Your task to perform on an android device: Open sound settings Image 0: 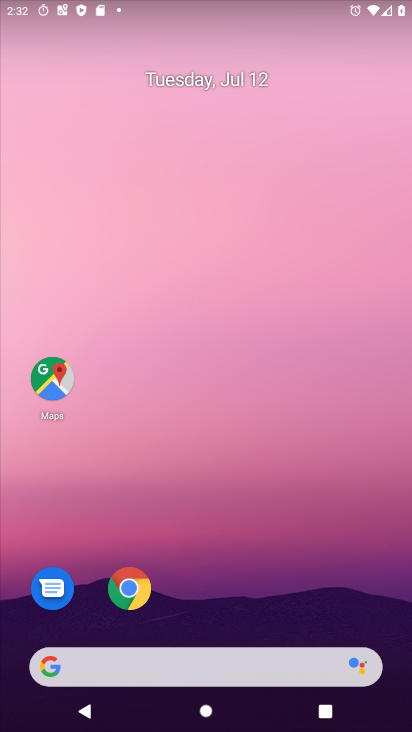
Step 0: click (166, 184)
Your task to perform on an android device: Open sound settings Image 1: 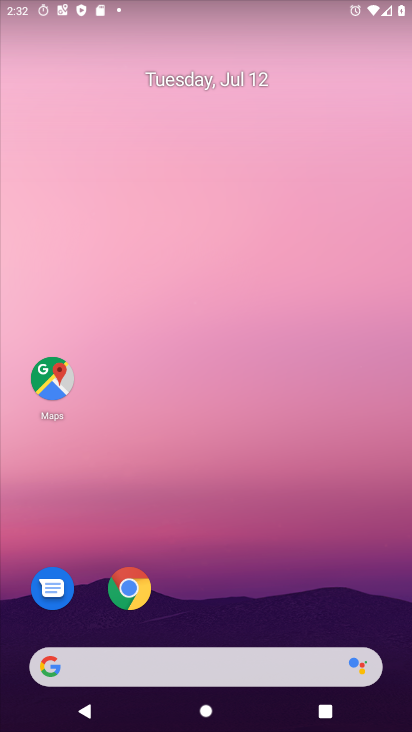
Step 1: drag from (232, 609) to (282, 15)
Your task to perform on an android device: Open sound settings Image 2: 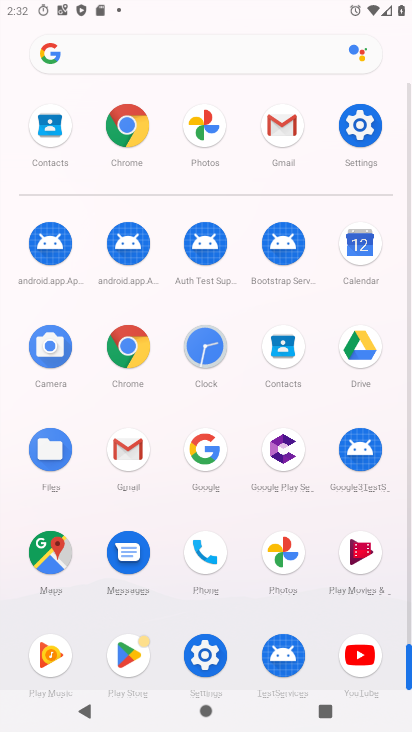
Step 2: click (354, 653)
Your task to perform on an android device: Open sound settings Image 3: 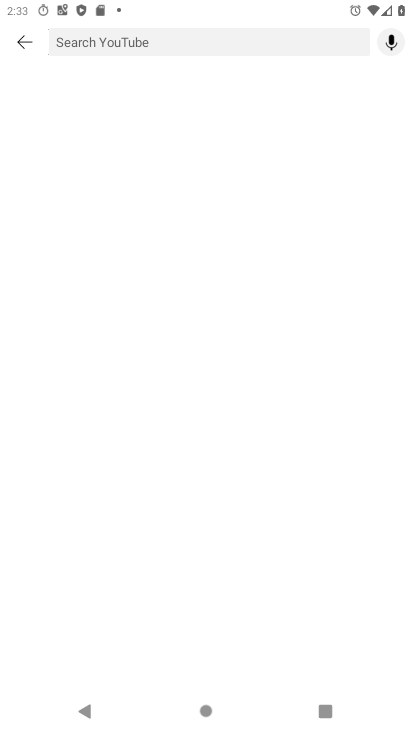
Step 3: drag from (196, 656) to (308, 288)
Your task to perform on an android device: Open sound settings Image 4: 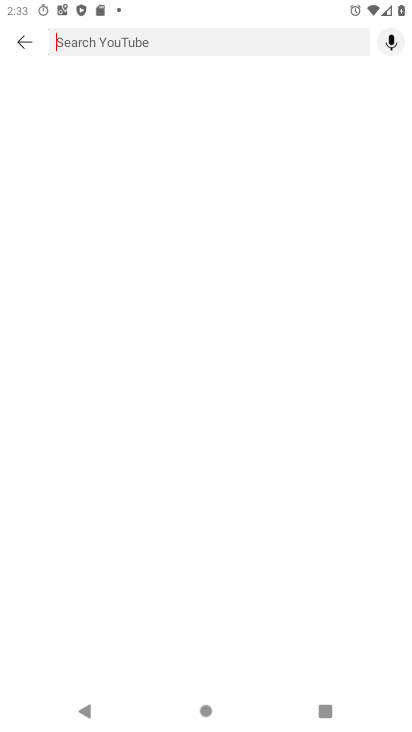
Step 4: click (12, 50)
Your task to perform on an android device: Open sound settings Image 5: 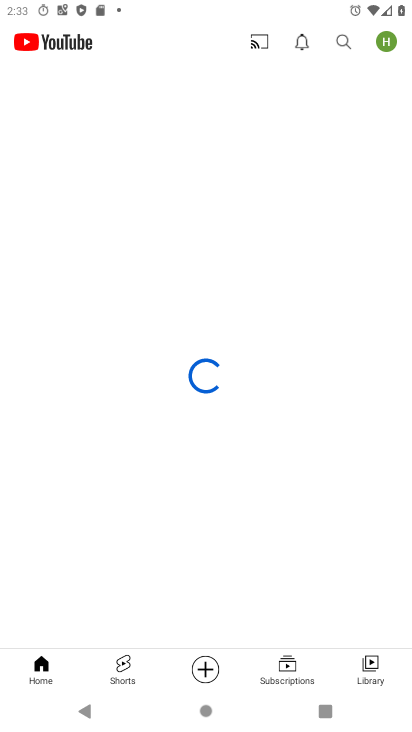
Step 5: press home button
Your task to perform on an android device: Open sound settings Image 6: 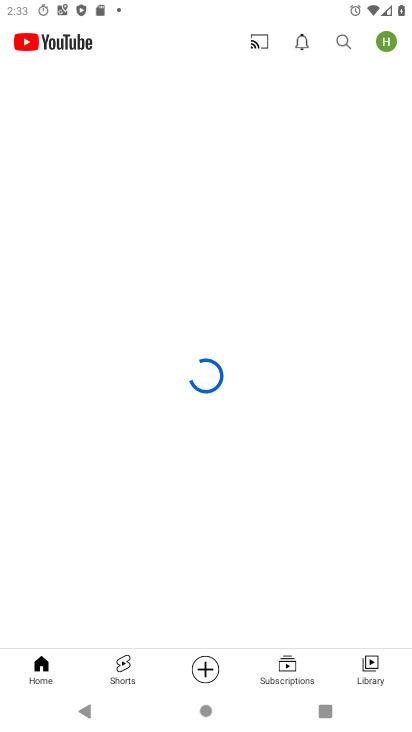
Step 6: drag from (232, 385) to (335, 171)
Your task to perform on an android device: Open sound settings Image 7: 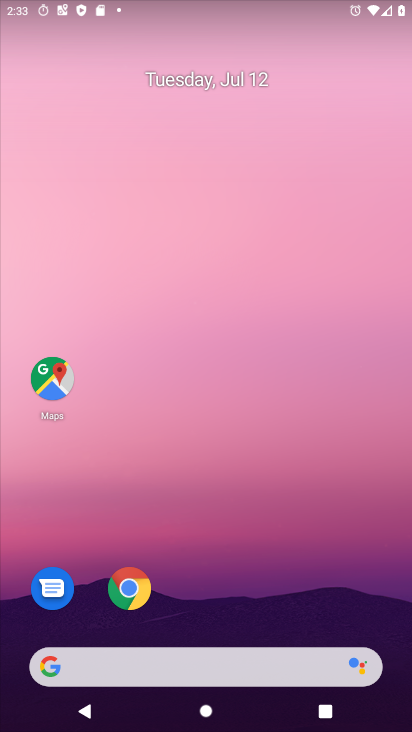
Step 7: drag from (264, 333) to (316, 3)
Your task to perform on an android device: Open sound settings Image 8: 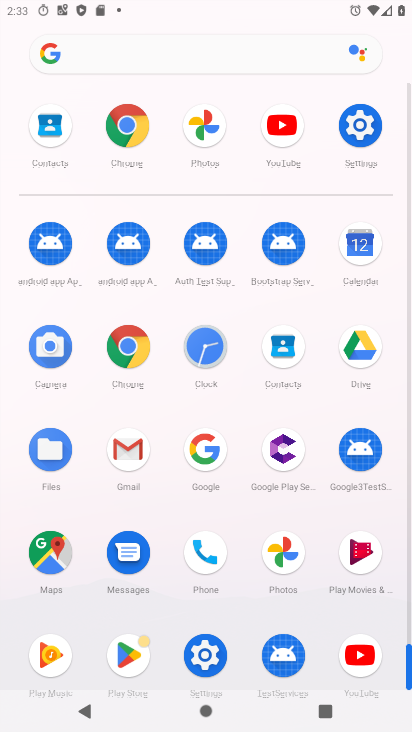
Step 8: click (357, 124)
Your task to perform on an android device: Open sound settings Image 9: 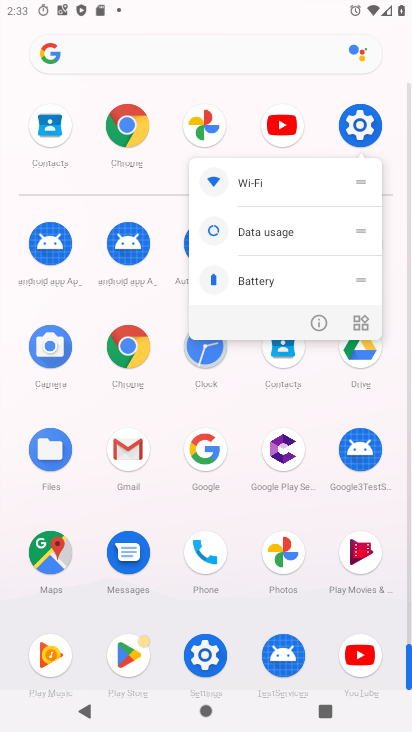
Step 9: click (313, 320)
Your task to perform on an android device: Open sound settings Image 10: 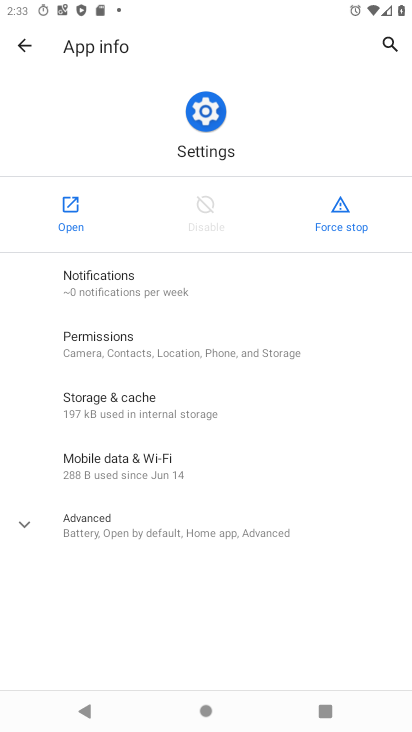
Step 10: click (68, 203)
Your task to perform on an android device: Open sound settings Image 11: 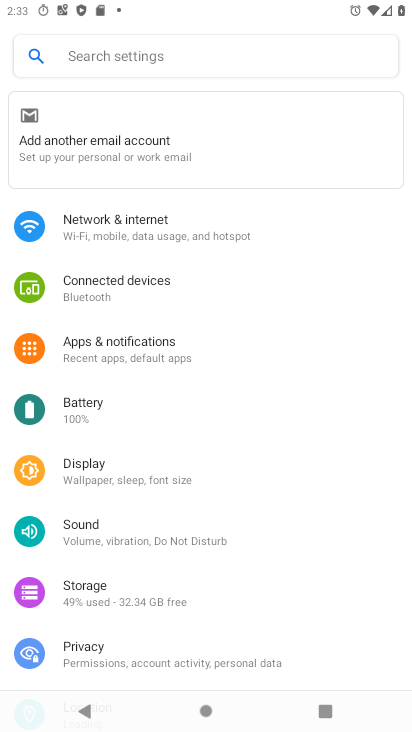
Step 11: drag from (163, 546) to (241, 225)
Your task to perform on an android device: Open sound settings Image 12: 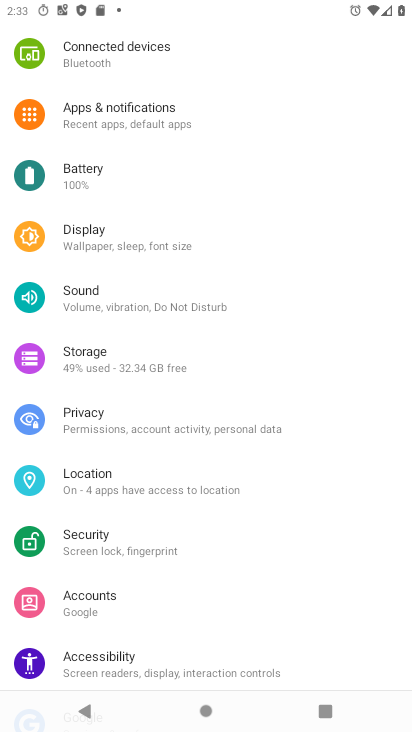
Step 12: click (101, 291)
Your task to perform on an android device: Open sound settings Image 13: 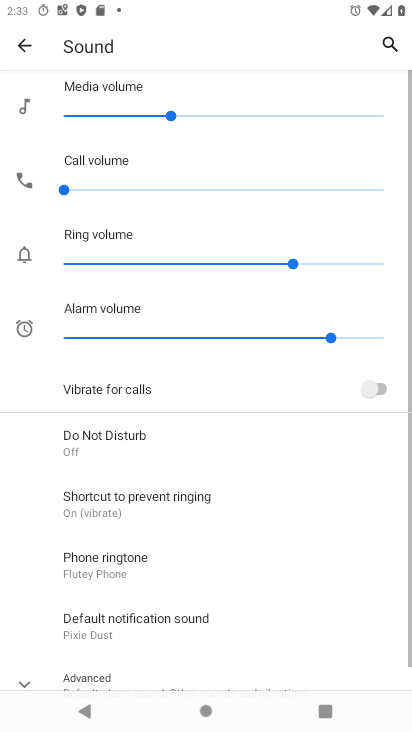
Step 13: task complete